Your task to perform on an android device: turn off priority inbox in the gmail app Image 0: 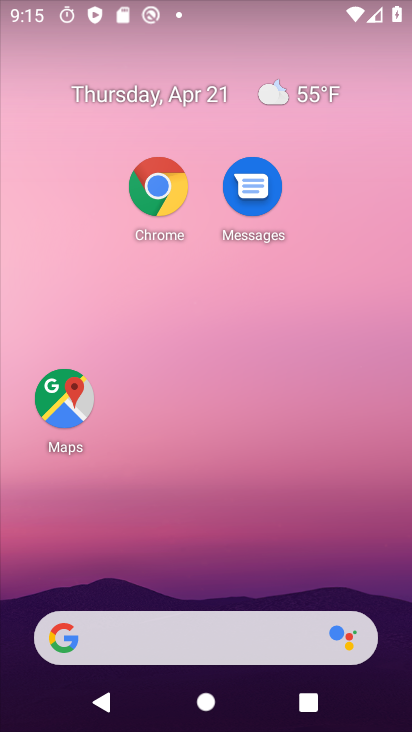
Step 0: drag from (180, 484) to (201, 81)
Your task to perform on an android device: turn off priority inbox in the gmail app Image 1: 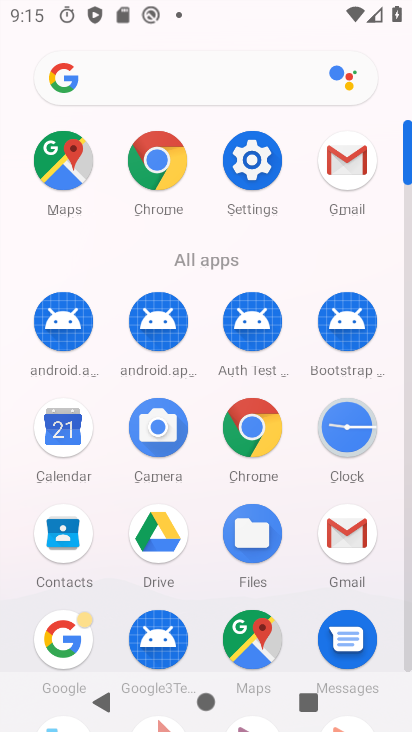
Step 1: click (334, 156)
Your task to perform on an android device: turn off priority inbox in the gmail app Image 2: 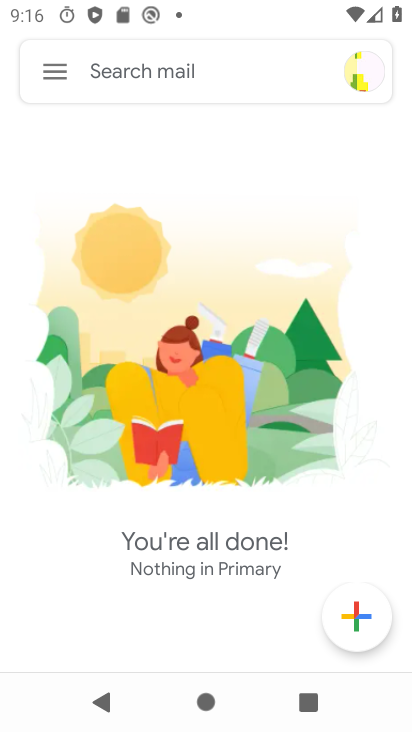
Step 2: click (57, 72)
Your task to perform on an android device: turn off priority inbox in the gmail app Image 3: 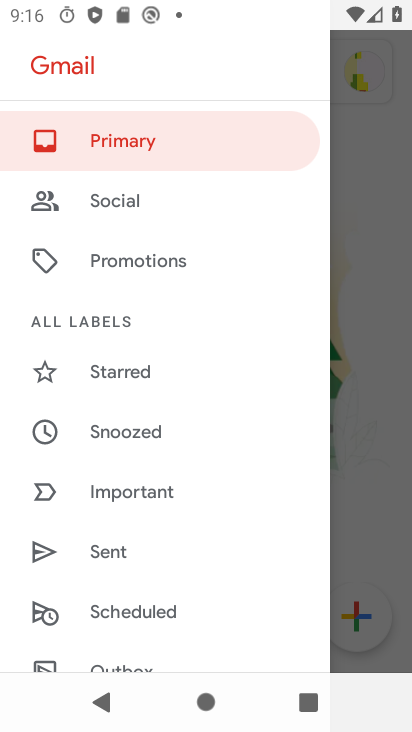
Step 3: drag from (147, 613) to (205, 150)
Your task to perform on an android device: turn off priority inbox in the gmail app Image 4: 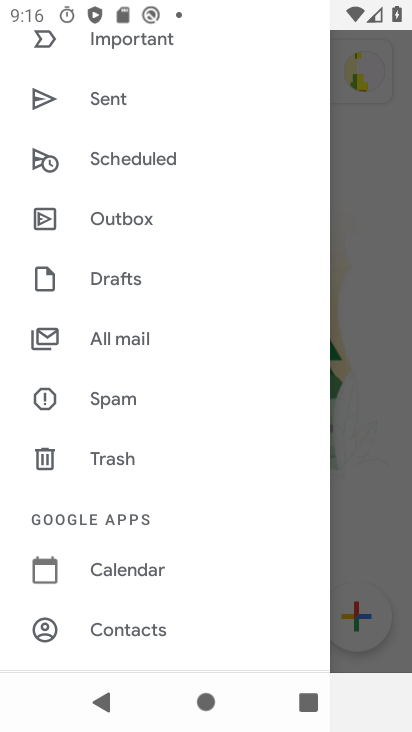
Step 4: drag from (142, 599) to (160, 284)
Your task to perform on an android device: turn off priority inbox in the gmail app Image 5: 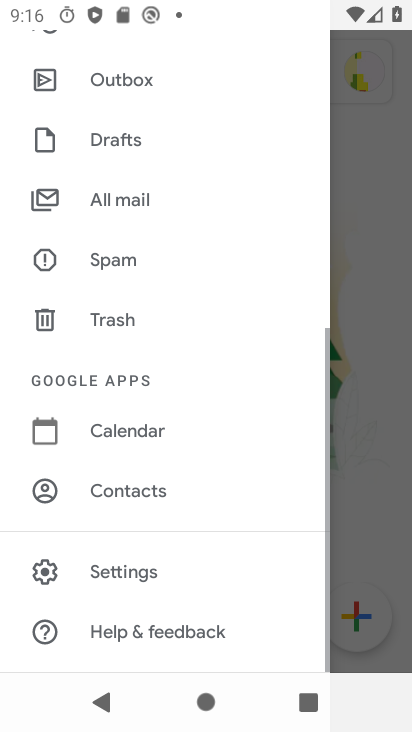
Step 5: click (143, 574)
Your task to perform on an android device: turn off priority inbox in the gmail app Image 6: 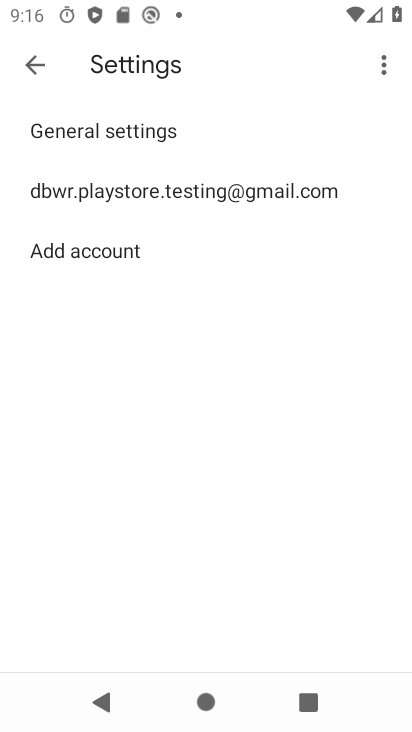
Step 6: click (152, 187)
Your task to perform on an android device: turn off priority inbox in the gmail app Image 7: 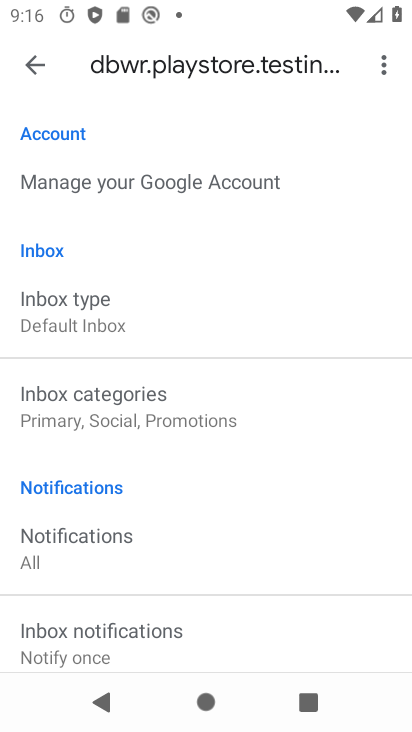
Step 7: drag from (196, 611) to (204, 421)
Your task to perform on an android device: turn off priority inbox in the gmail app Image 8: 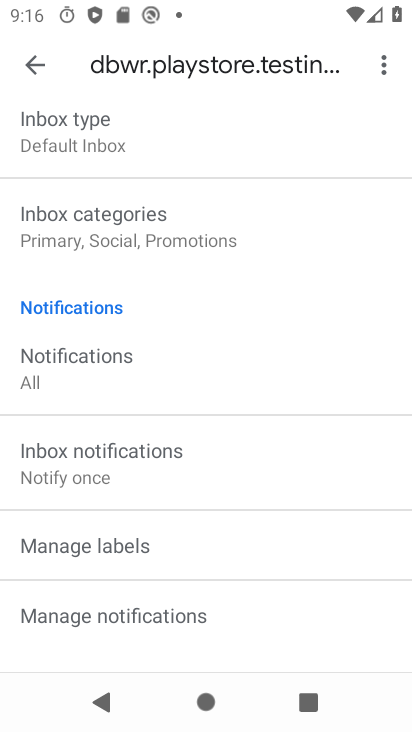
Step 8: click (105, 152)
Your task to perform on an android device: turn off priority inbox in the gmail app Image 9: 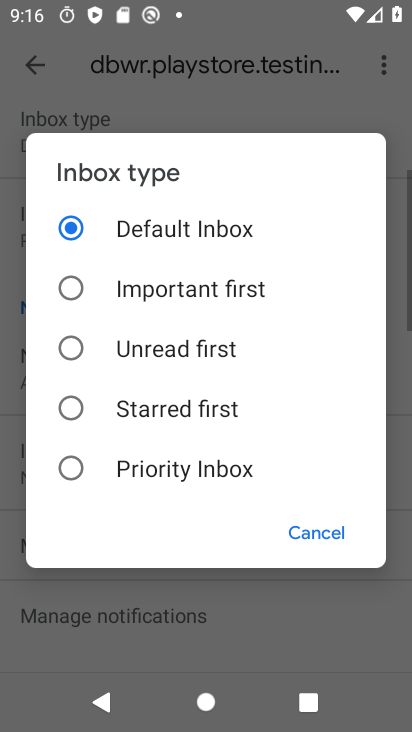
Step 9: task complete